Your task to perform on an android device: add a label to a message in the gmail app Image 0: 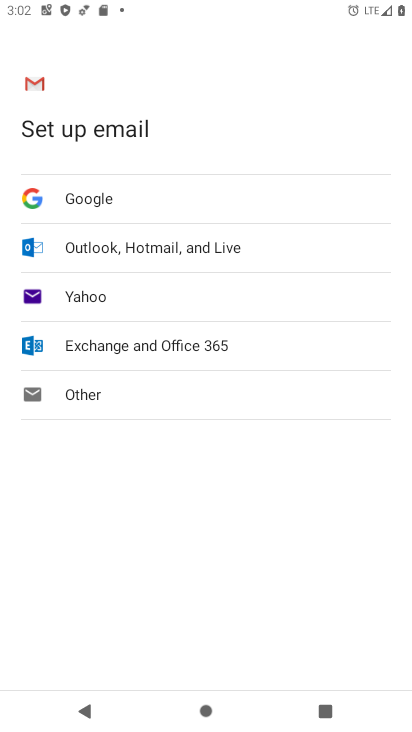
Step 0: press home button
Your task to perform on an android device: add a label to a message in the gmail app Image 1: 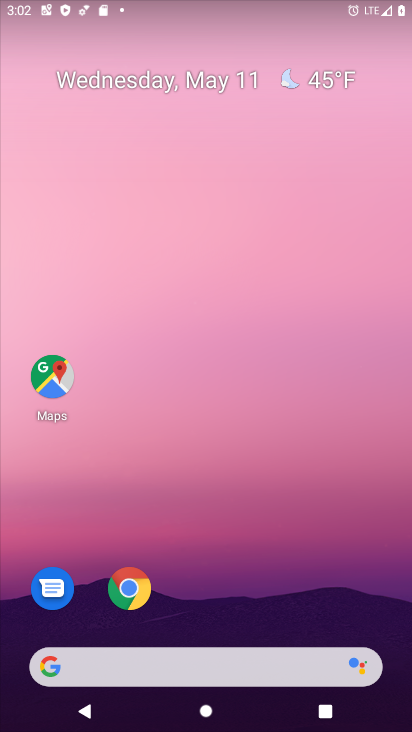
Step 1: drag from (241, 594) to (224, 226)
Your task to perform on an android device: add a label to a message in the gmail app Image 2: 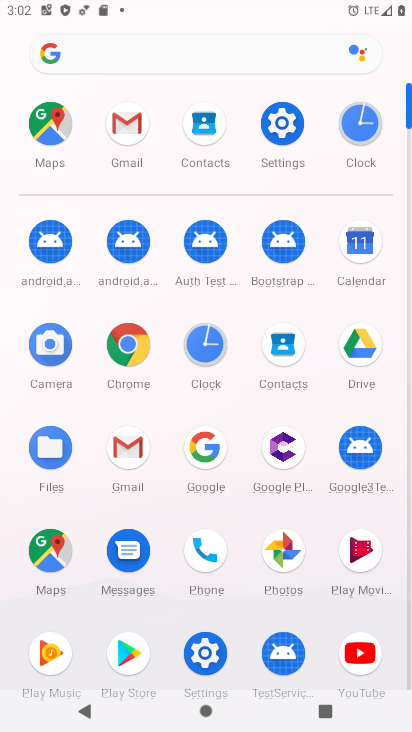
Step 2: click (138, 137)
Your task to perform on an android device: add a label to a message in the gmail app Image 3: 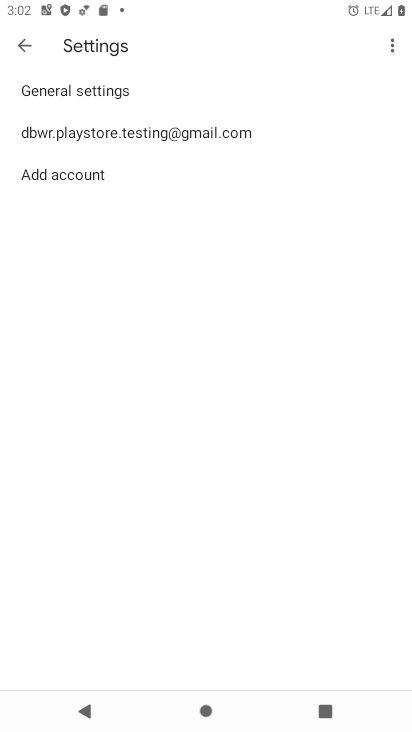
Step 3: click (102, 149)
Your task to perform on an android device: add a label to a message in the gmail app Image 4: 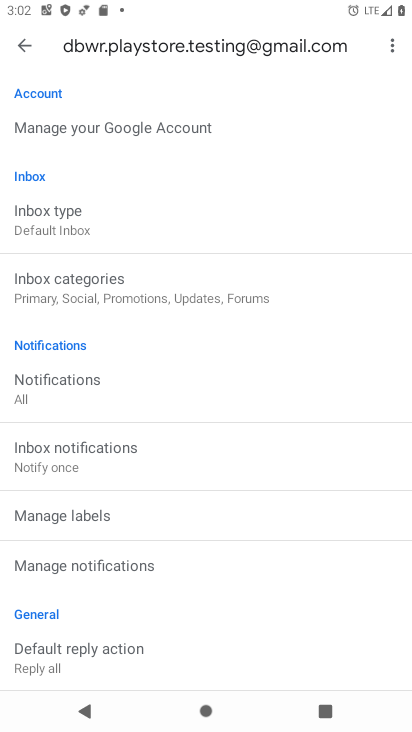
Step 4: click (33, 49)
Your task to perform on an android device: add a label to a message in the gmail app Image 5: 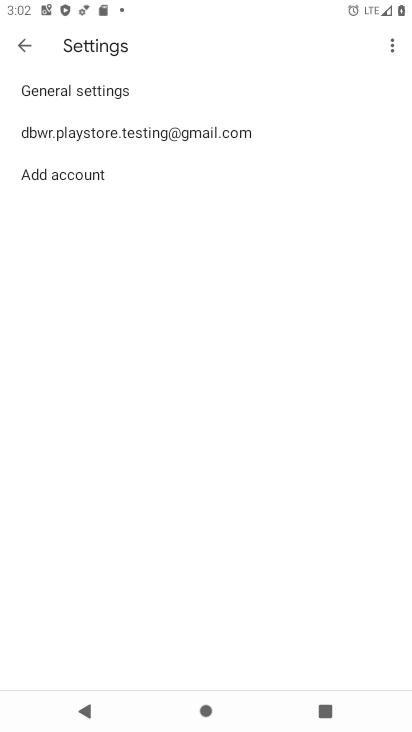
Step 5: click (33, 52)
Your task to perform on an android device: add a label to a message in the gmail app Image 6: 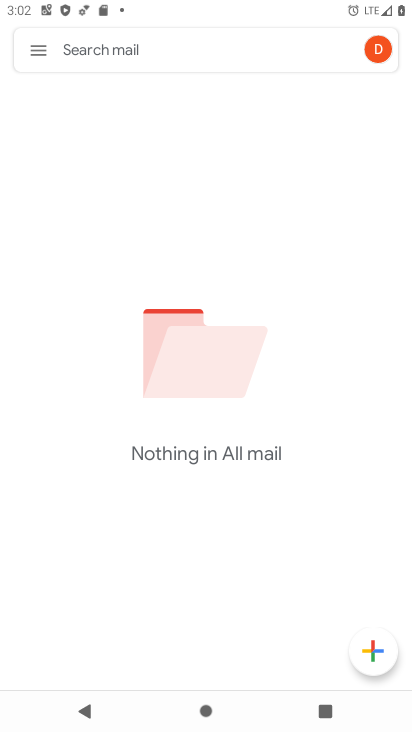
Step 6: click (33, 52)
Your task to perform on an android device: add a label to a message in the gmail app Image 7: 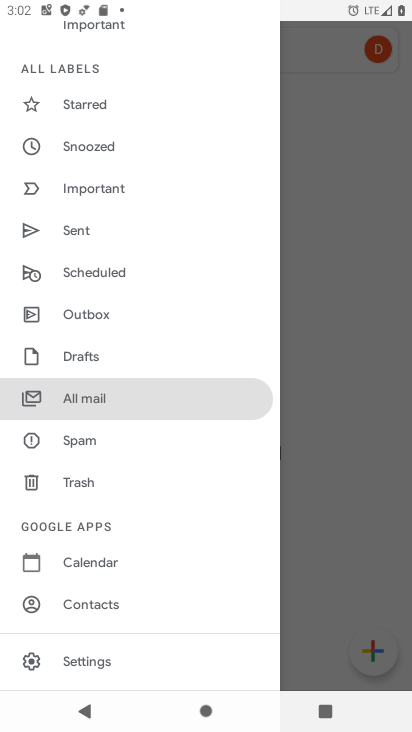
Step 7: click (160, 390)
Your task to perform on an android device: add a label to a message in the gmail app Image 8: 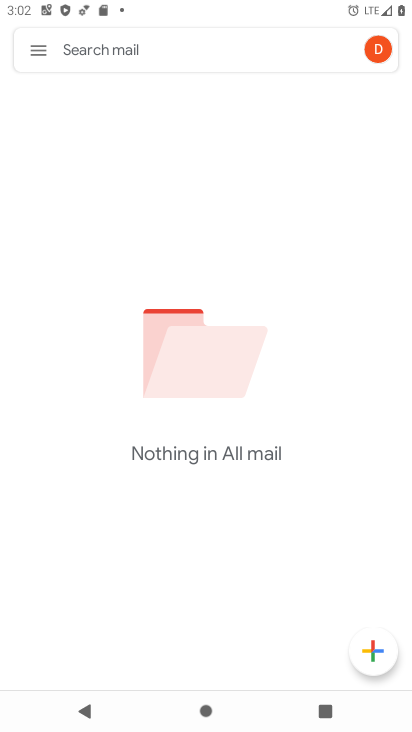
Step 8: task complete